Your task to perform on an android device: Go to Maps Image 0: 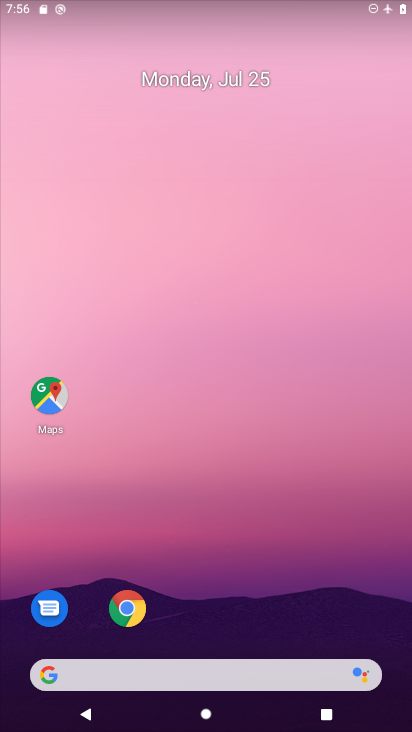
Step 0: drag from (319, 648) to (218, 56)
Your task to perform on an android device: Go to Maps Image 1: 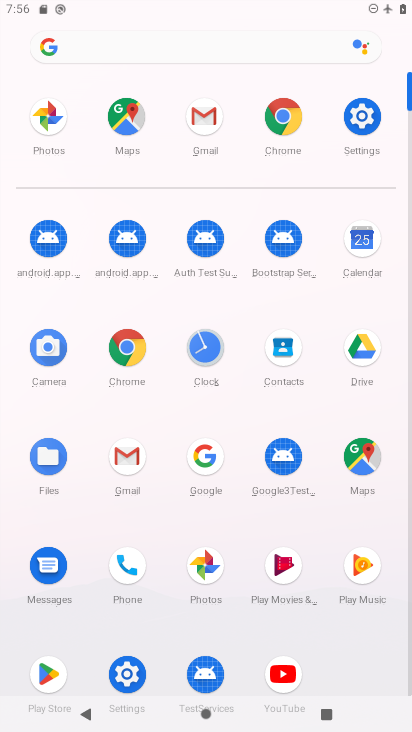
Step 1: click (357, 467)
Your task to perform on an android device: Go to Maps Image 2: 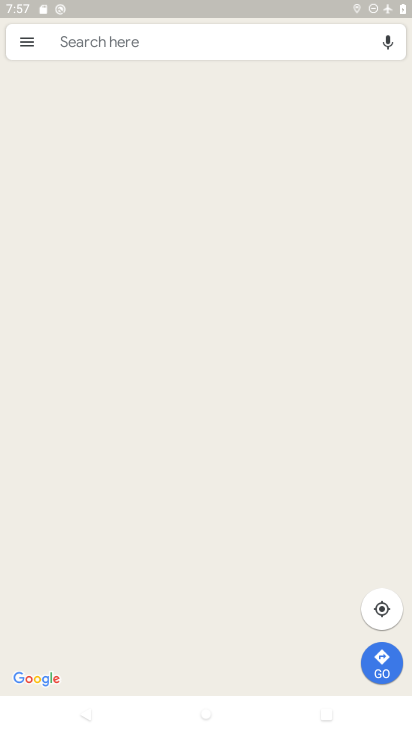
Step 2: task complete